Your task to perform on an android device: Search for "panasonic triple a" on newegg.com, select the first entry, and add it to the cart. Image 0: 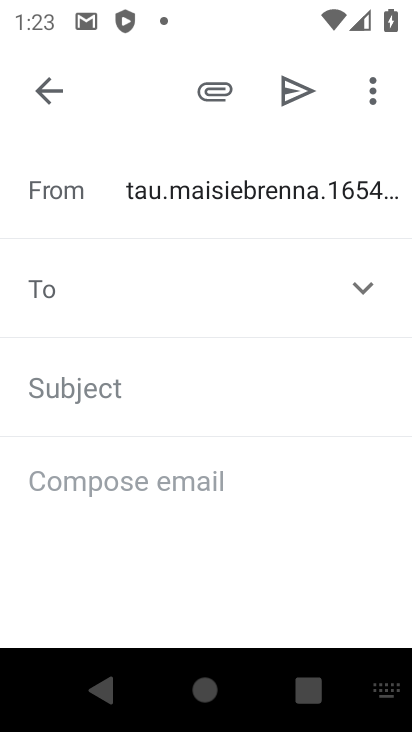
Step 0: press home button
Your task to perform on an android device: Search for "panasonic triple a" on newegg.com, select the first entry, and add it to the cart. Image 1: 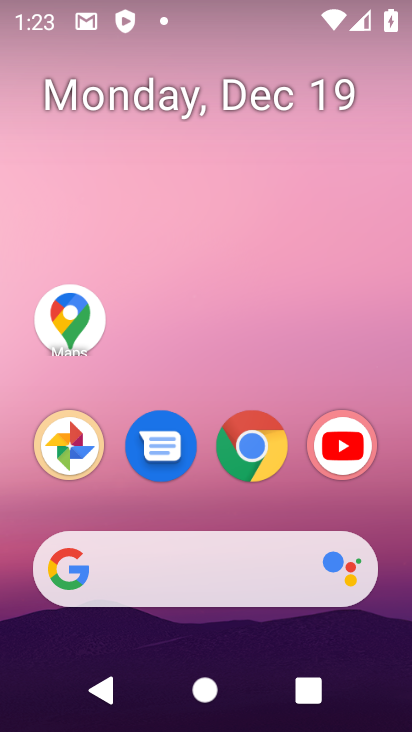
Step 1: click (270, 456)
Your task to perform on an android device: Search for "panasonic triple a" on newegg.com, select the first entry, and add it to the cart. Image 2: 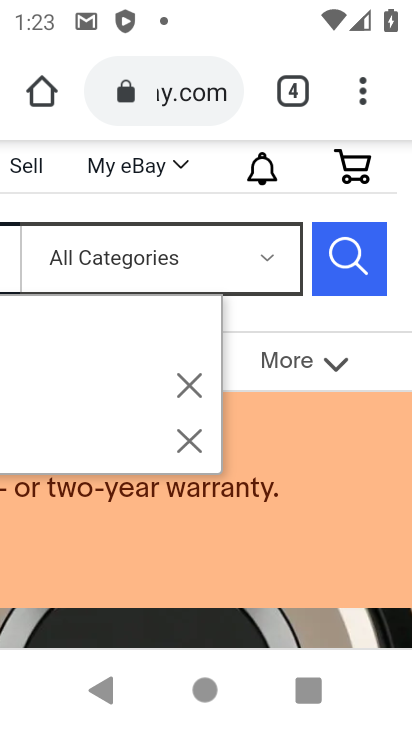
Step 2: click (174, 108)
Your task to perform on an android device: Search for "panasonic triple a" on newegg.com, select the first entry, and add it to the cart. Image 3: 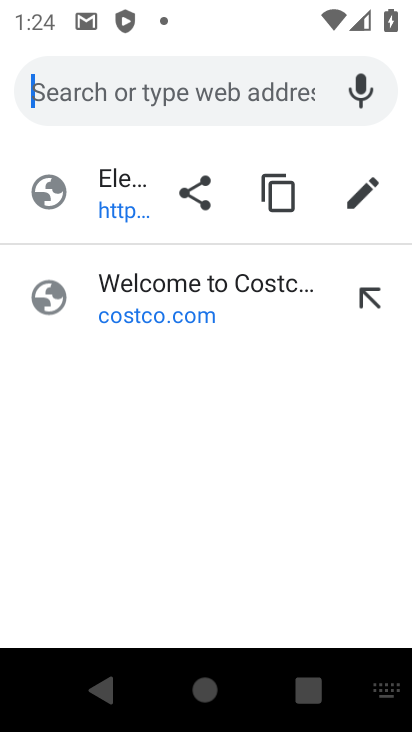
Step 3: type "newegg"
Your task to perform on an android device: Search for "panasonic triple a" on newegg.com, select the first entry, and add it to the cart. Image 4: 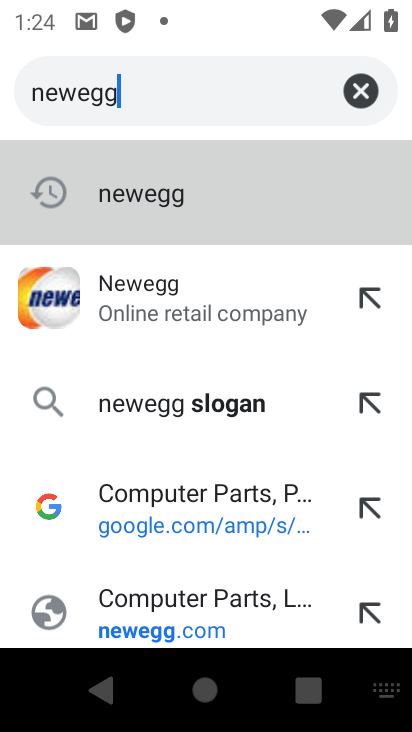
Step 4: click (216, 329)
Your task to perform on an android device: Search for "panasonic triple a" on newegg.com, select the first entry, and add it to the cart. Image 5: 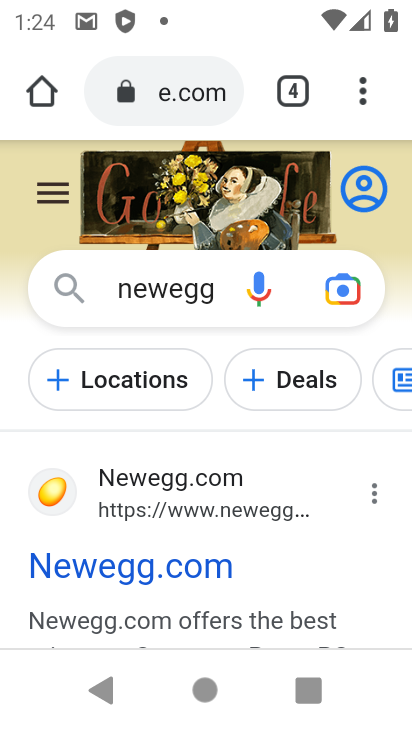
Step 5: click (127, 541)
Your task to perform on an android device: Search for "panasonic triple a" on newegg.com, select the first entry, and add it to the cart. Image 6: 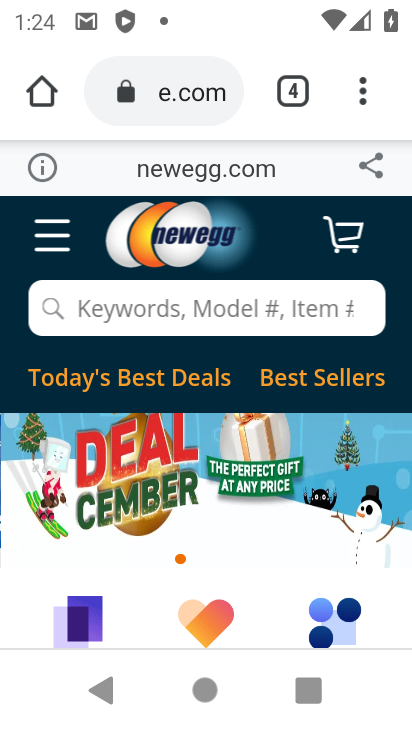
Step 6: click (242, 322)
Your task to perform on an android device: Search for "panasonic triple a" on newegg.com, select the first entry, and add it to the cart. Image 7: 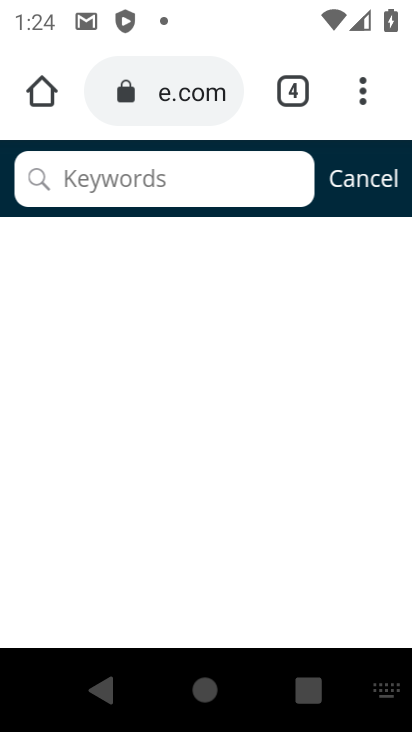
Step 7: type "panasonic triple a"
Your task to perform on an android device: Search for "panasonic triple a" on newegg.com, select the first entry, and add it to the cart. Image 8: 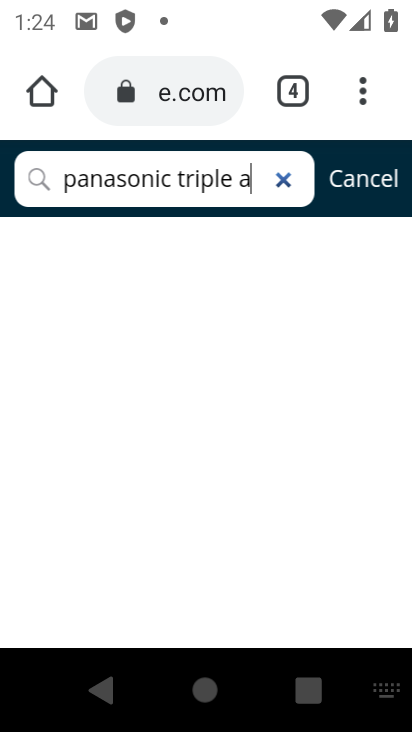
Step 8: task complete